Your task to perform on an android device: change the clock display to digital Image 0: 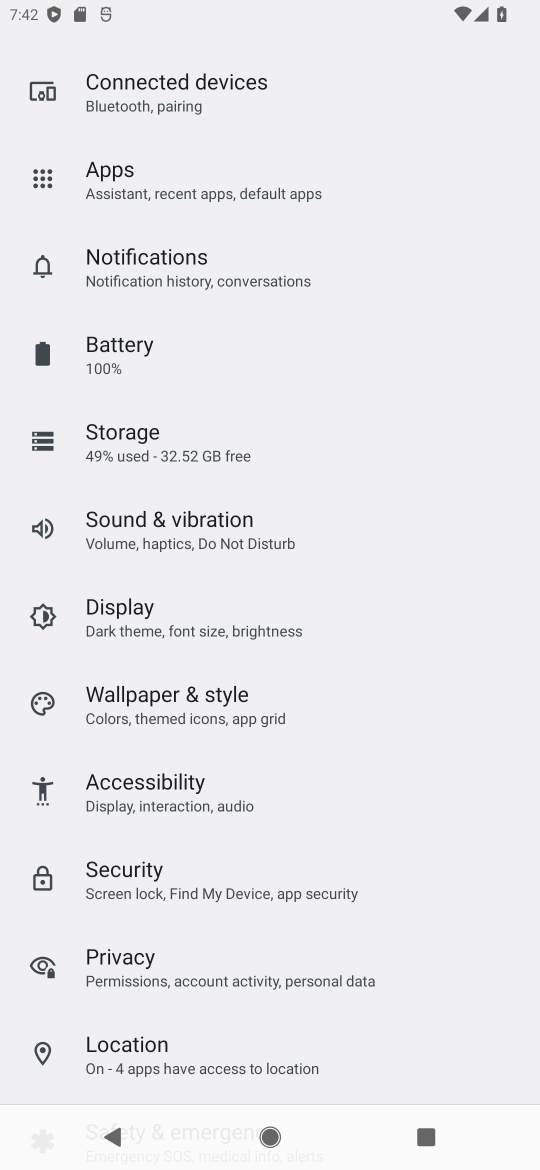
Step 0: press home button
Your task to perform on an android device: change the clock display to digital Image 1: 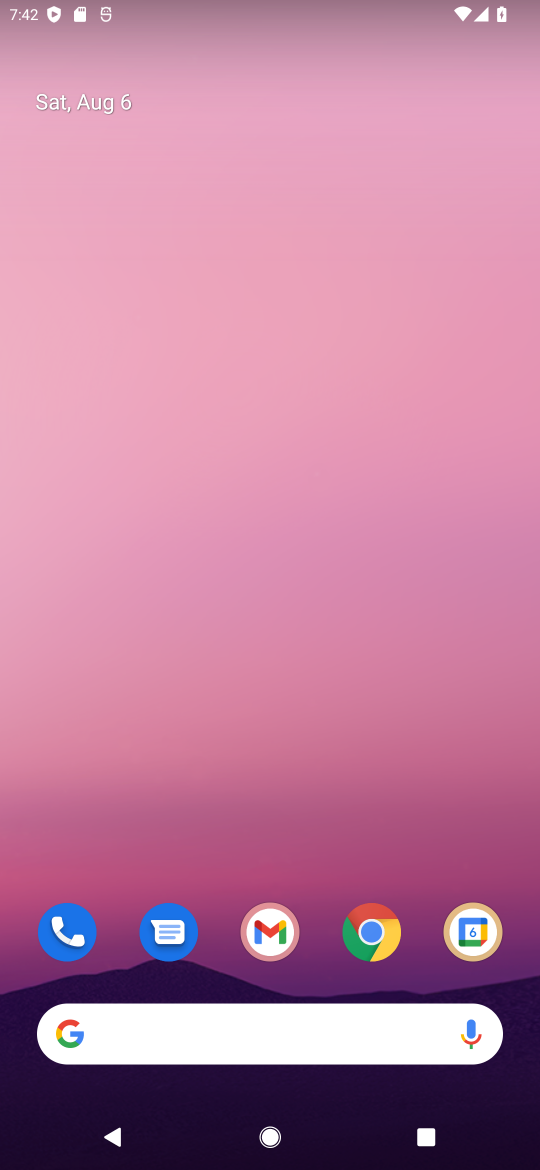
Step 1: drag from (291, 1017) to (387, 473)
Your task to perform on an android device: change the clock display to digital Image 2: 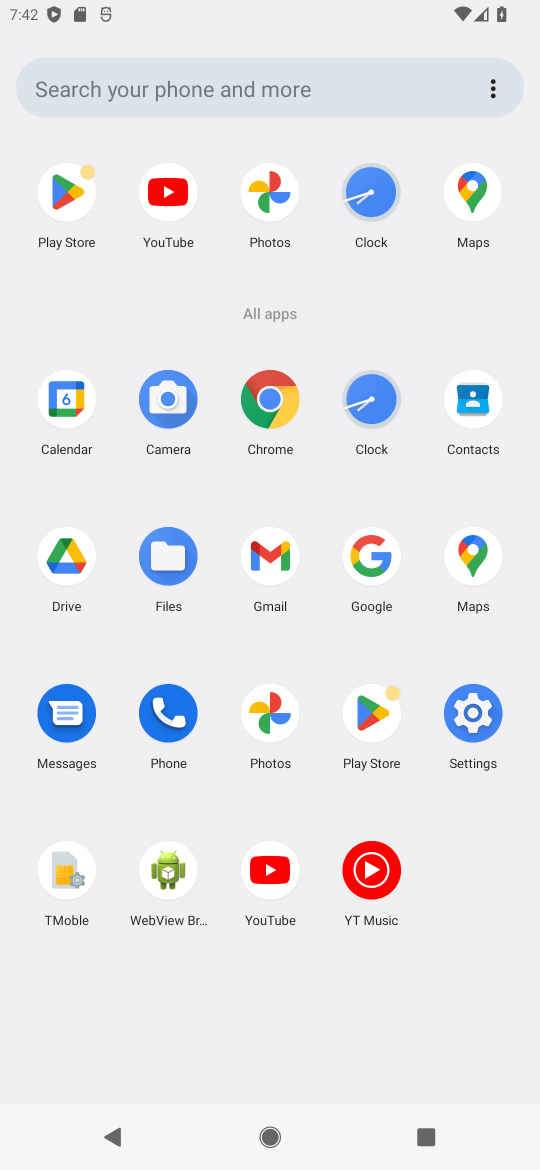
Step 2: click (372, 190)
Your task to perform on an android device: change the clock display to digital Image 3: 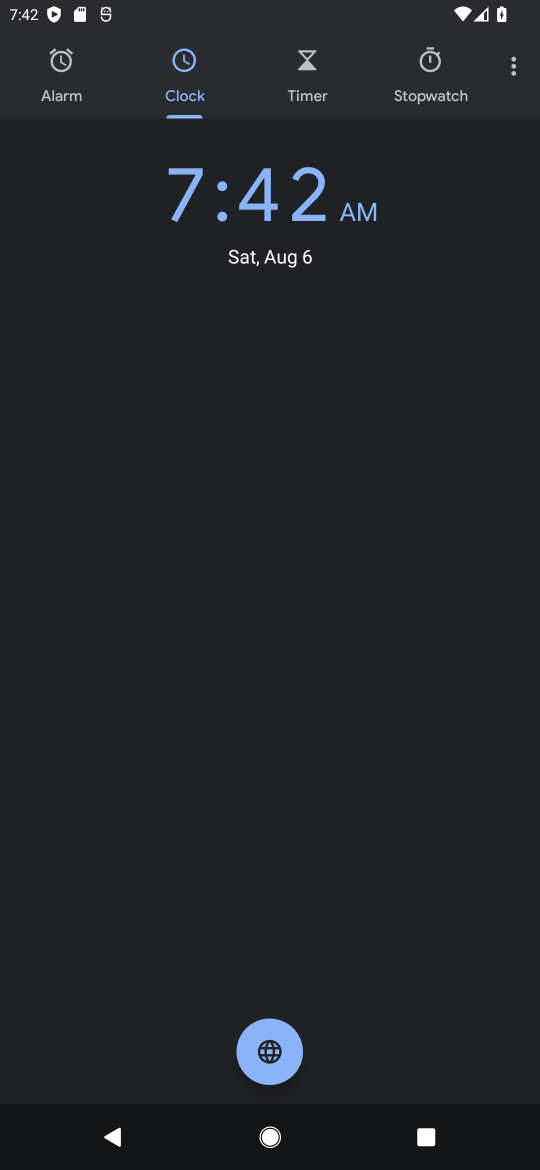
Step 3: click (526, 51)
Your task to perform on an android device: change the clock display to digital Image 4: 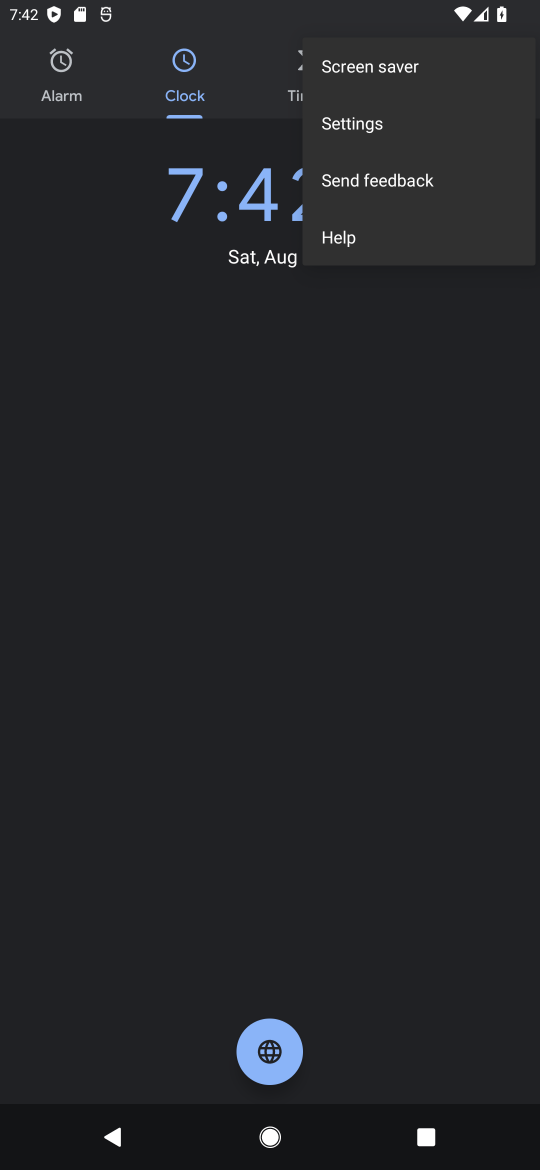
Step 4: click (383, 136)
Your task to perform on an android device: change the clock display to digital Image 5: 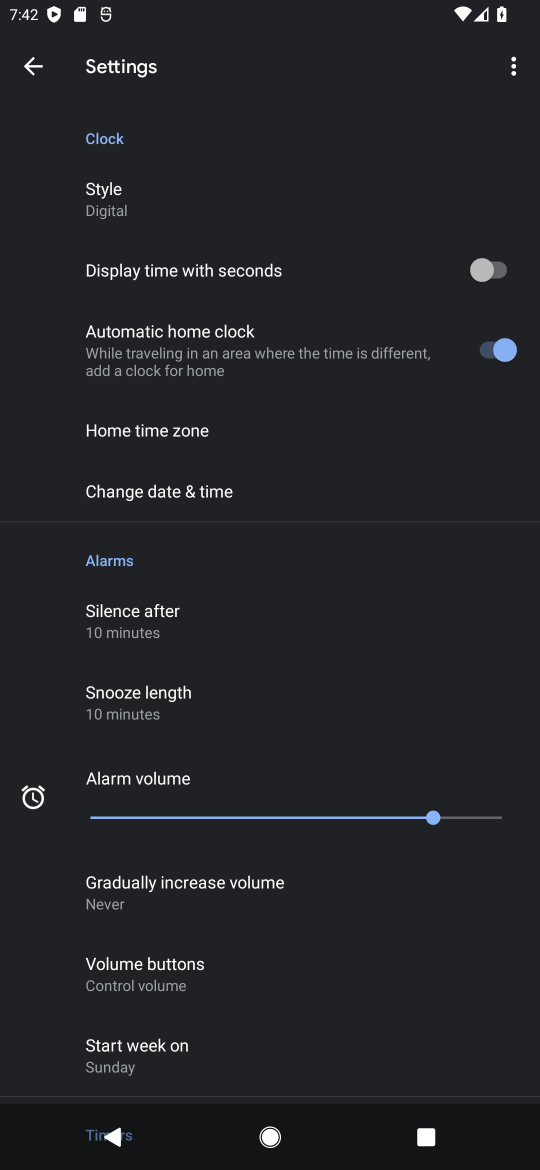
Step 5: task complete